Your task to perform on an android device: turn notification dots on Image 0: 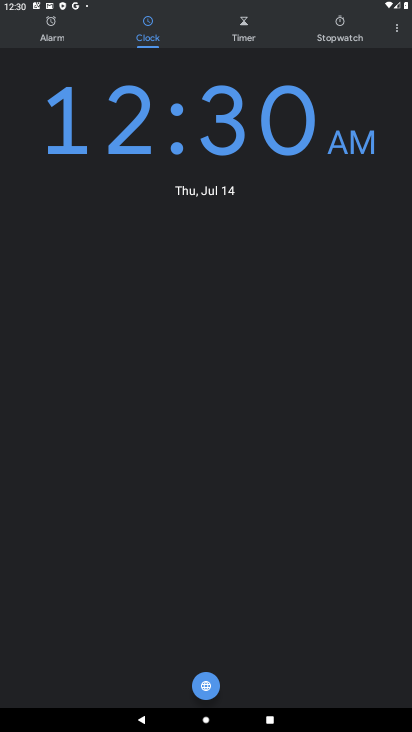
Step 0: press home button
Your task to perform on an android device: turn notification dots on Image 1: 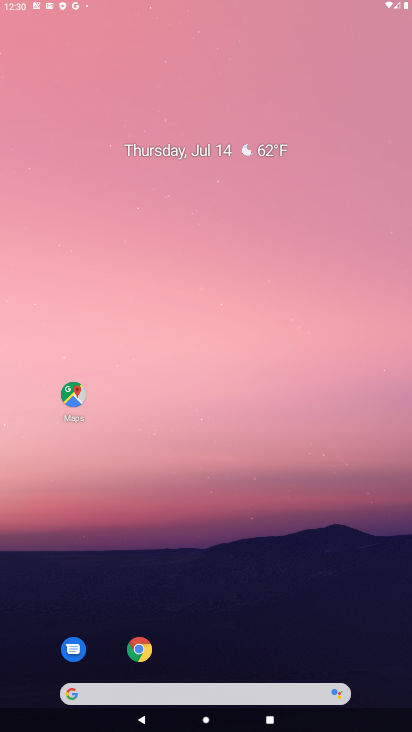
Step 1: drag from (393, 690) to (226, 39)
Your task to perform on an android device: turn notification dots on Image 2: 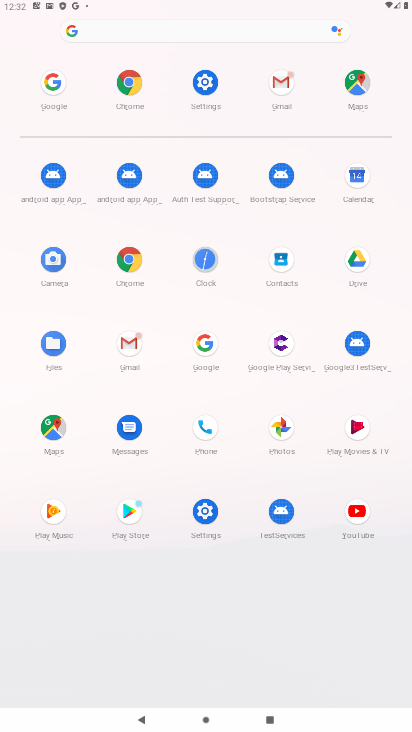
Step 2: click (211, 508)
Your task to perform on an android device: turn notification dots on Image 3: 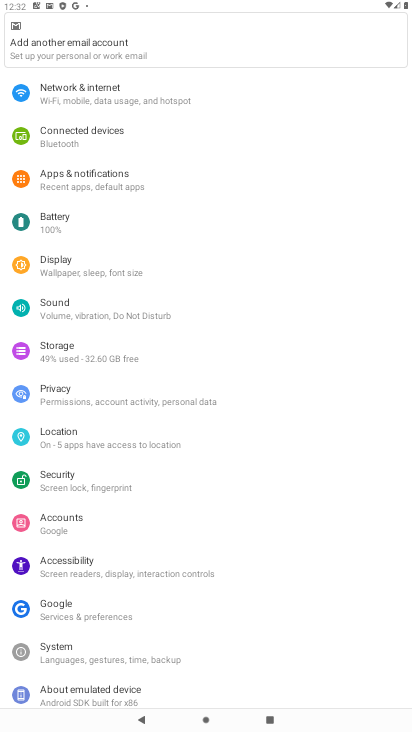
Step 3: click (91, 181)
Your task to perform on an android device: turn notification dots on Image 4: 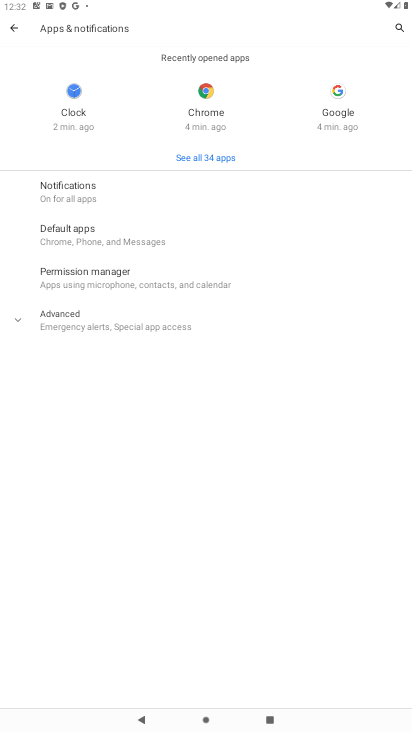
Step 4: click (114, 203)
Your task to perform on an android device: turn notification dots on Image 5: 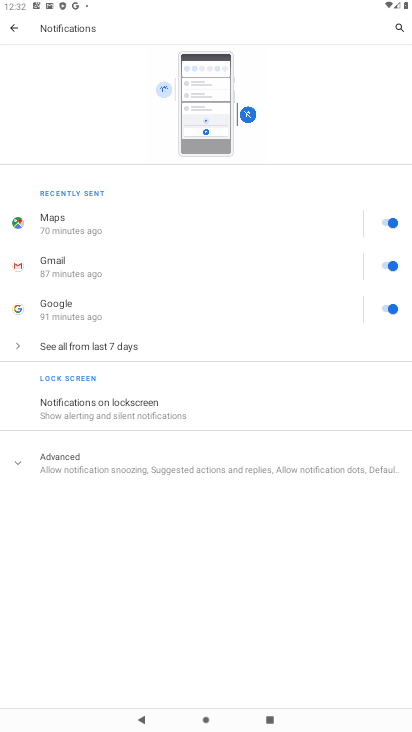
Step 5: click (73, 457)
Your task to perform on an android device: turn notification dots on Image 6: 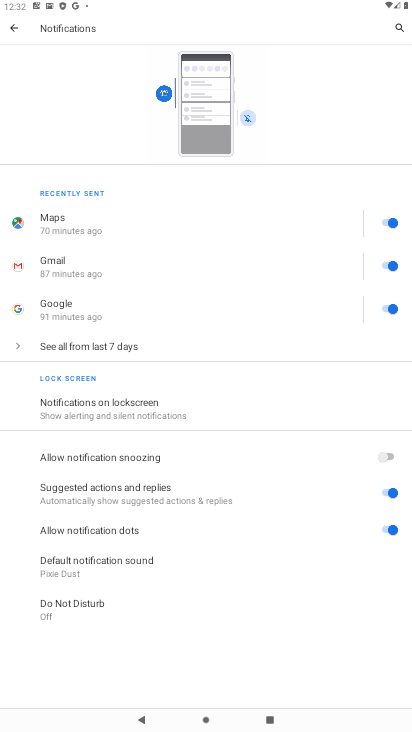
Step 6: click (162, 531)
Your task to perform on an android device: turn notification dots on Image 7: 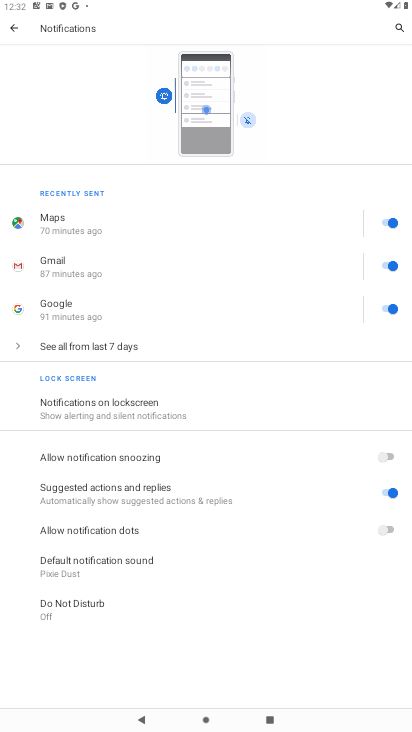
Step 7: click (162, 531)
Your task to perform on an android device: turn notification dots on Image 8: 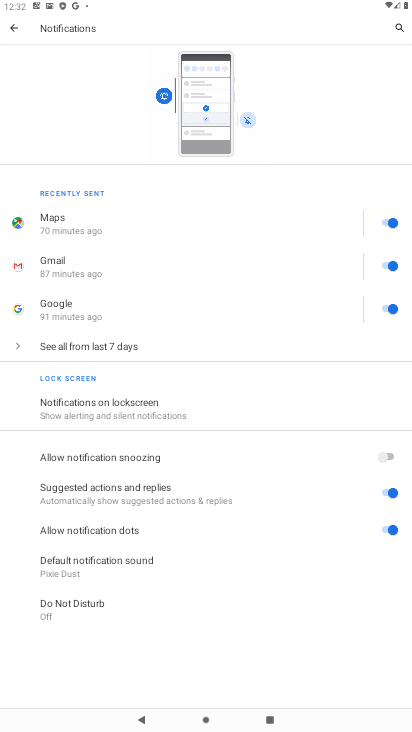
Step 8: task complete